Your task to perform on an android device: turn on the 12-hour format for clock Image 0: 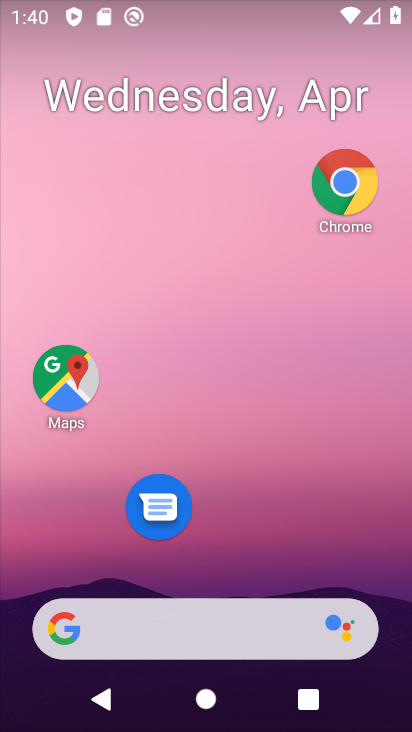
Step 0: drag from (283, 709) to (219, 158)
Your task to perform on an android device: turn on the 12-hour format for clock Image 1: 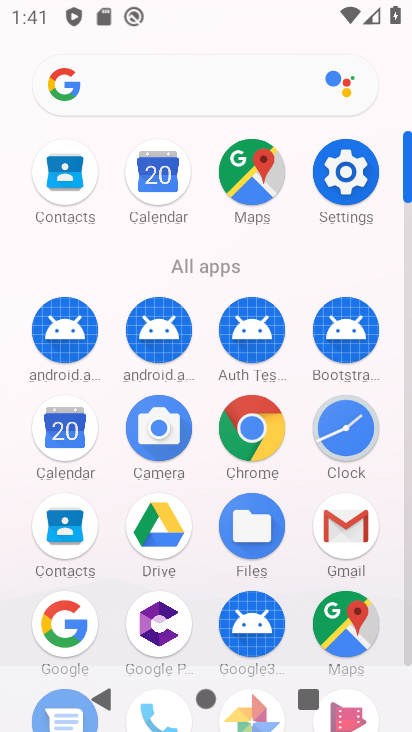
Step 1: click (341, 437)
Your task to perform on an android device: turn on the 12-hour format for clock Image 2: 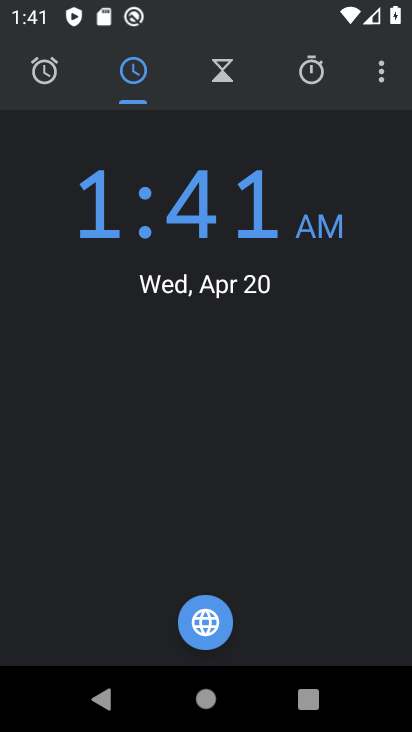
Step 2: click (383, 81)
Your task to perform on an android device: turn on the 12-hour format for clock Image 3: 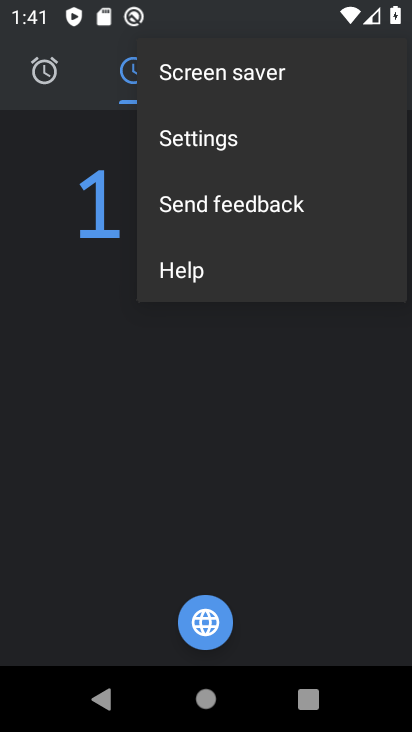
Step 3: click (240, 150)
Your task to perform on an android device: turn on the 12-hour format for clock Image 4: 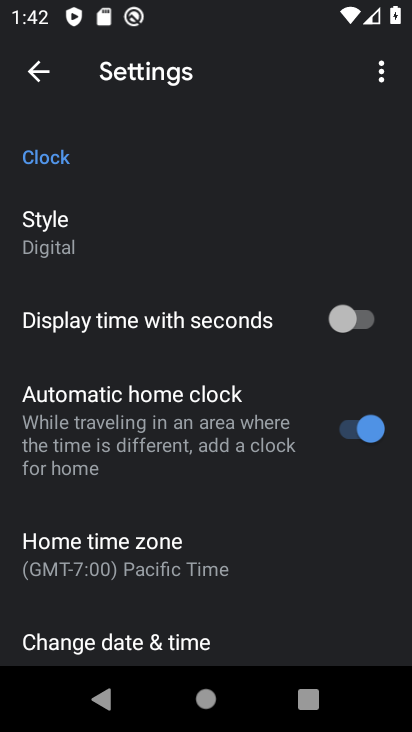
Step 4: click (259, 619)
Your task to perform on an android device: turn on the 12-hour format for clock Image 5: 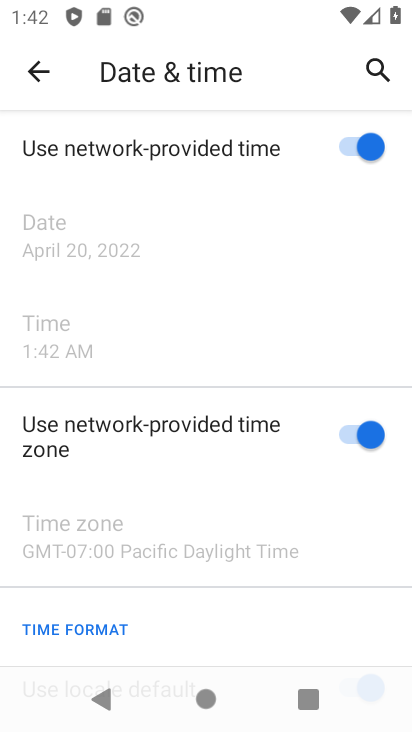
Step 5: task complete